Your task to perform on an android device: add a contact Image 0: 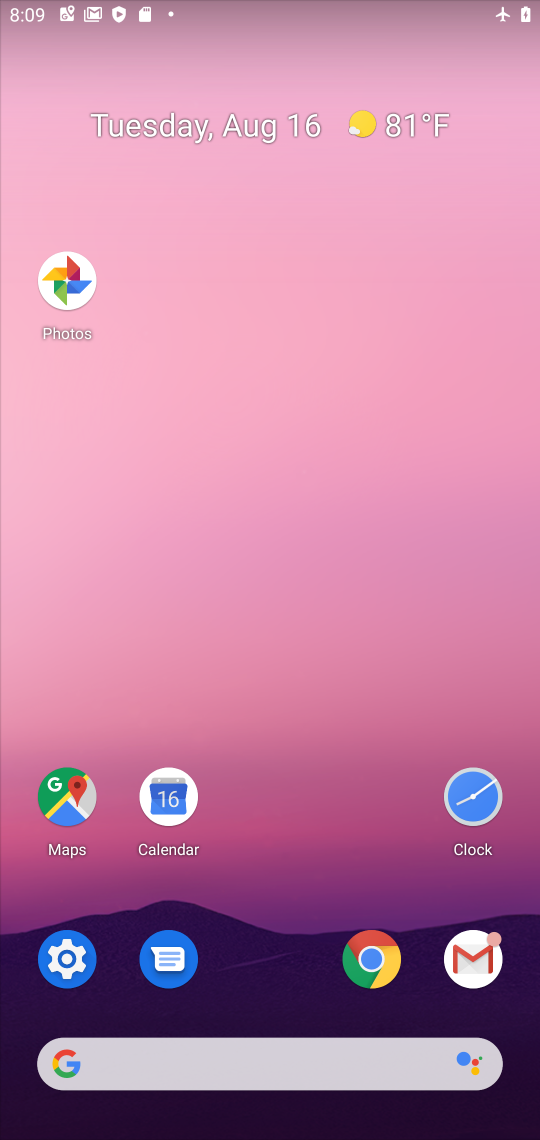
Step 0: drag from (283, 990) to (228, 328)
Your task to perform on an android device: add a contact Image 1: 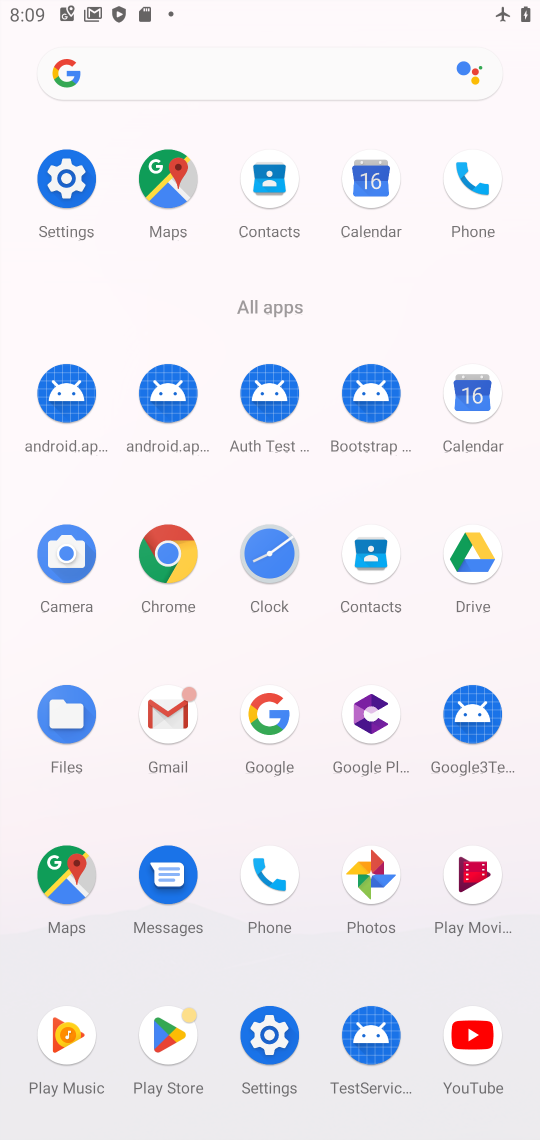
Step 1: click (378, 550)
Your task to perform on an android device: add a contact Image 2: 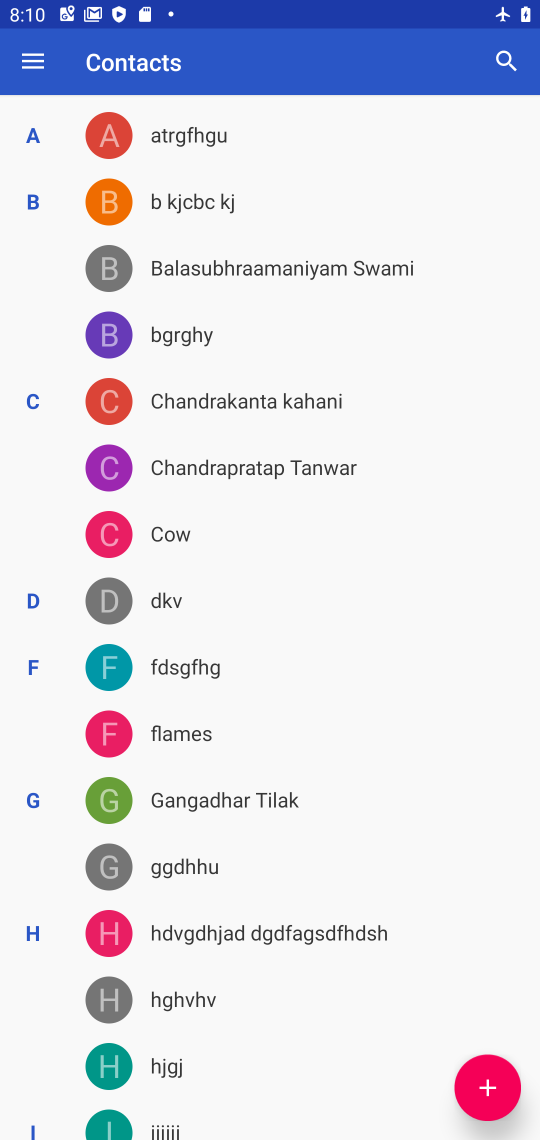
Step 2: click (485, 1079)
Your task to perform on an android device: add a contact Image 3: 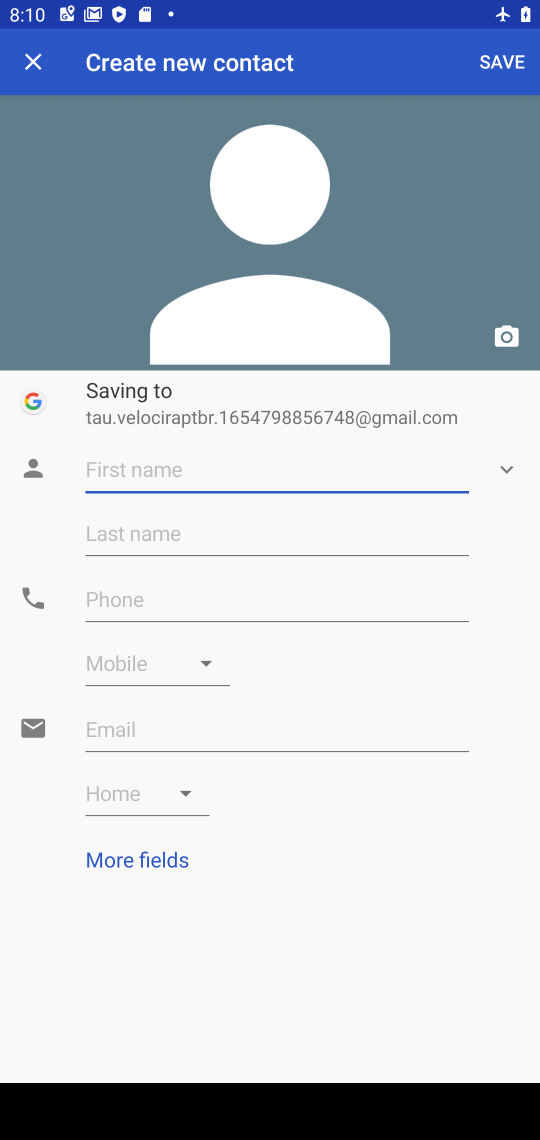
Step 3: type "nnn"
Your task to perform on an android device: add a contact Image 4: 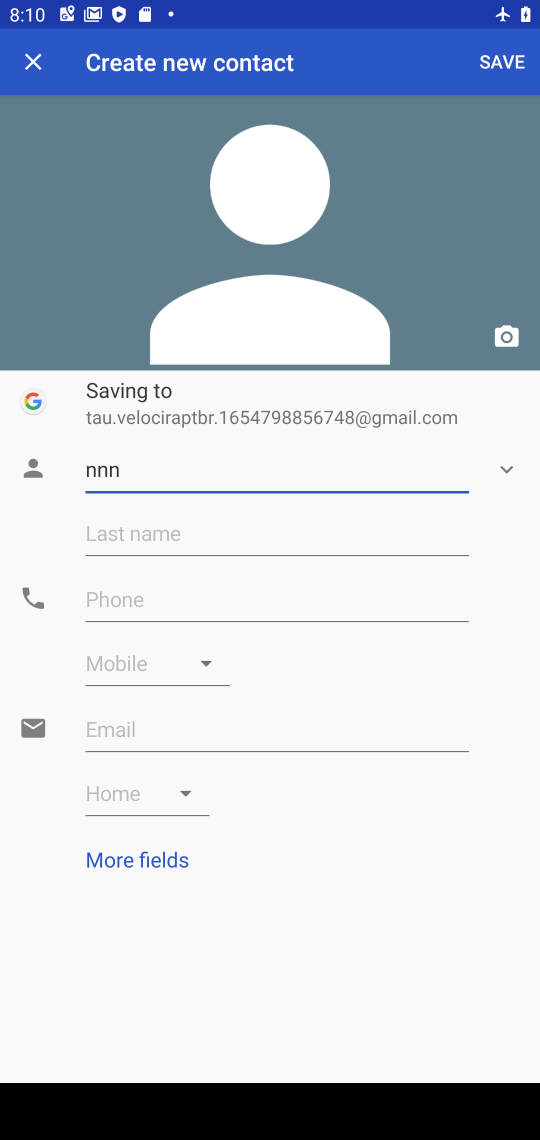
Step 4: click (130, 595)
Your task to perform on an android device: add a contact Image 5: 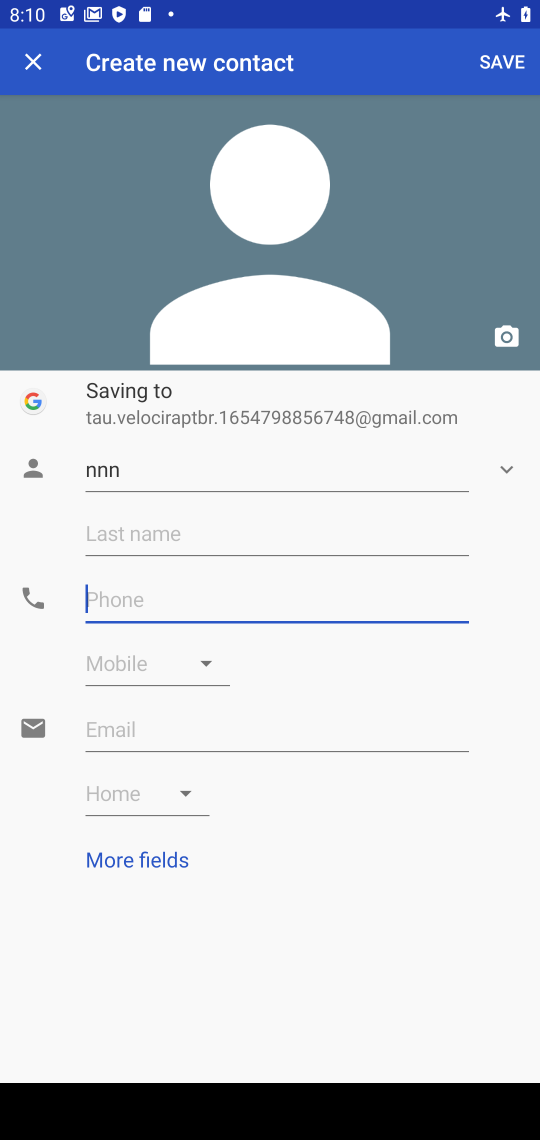
Step 5: type "0"
Your task to perform on an android device: add a contact Image 6: 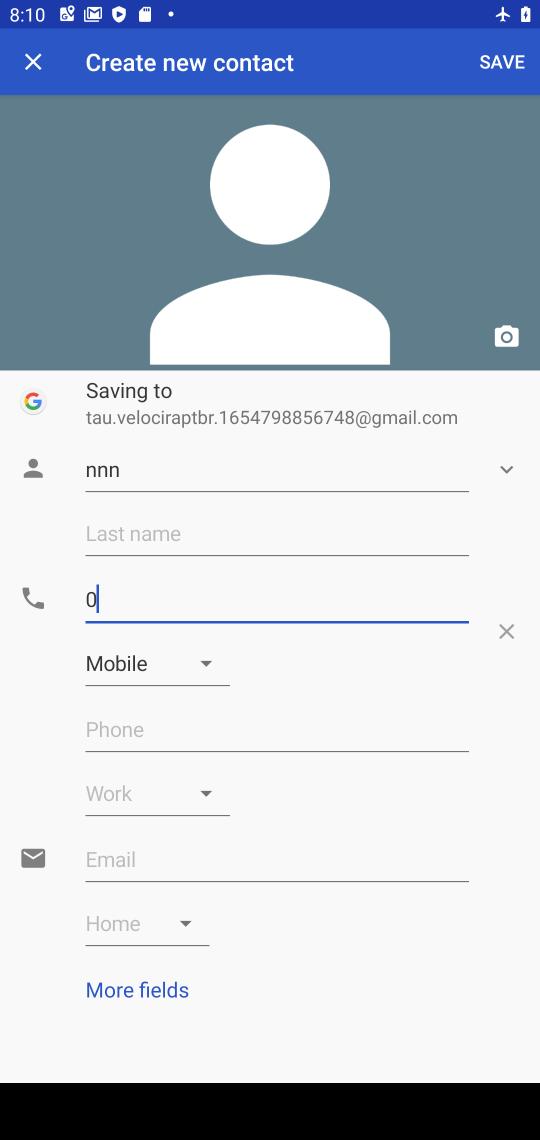
Step 6: click (505, 55)
Your task to perform on an android device: add a contact Image 7: 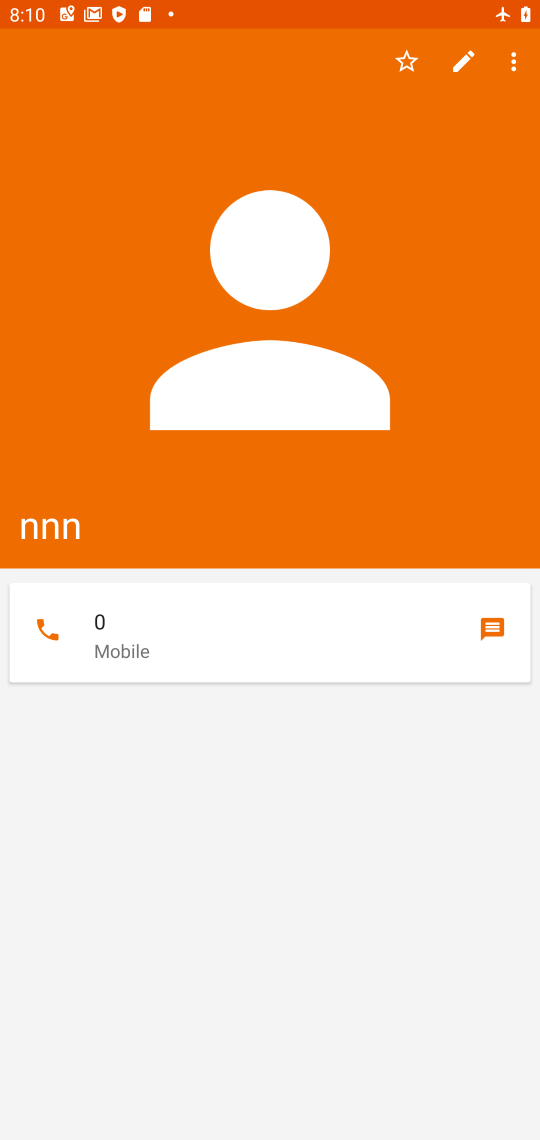
Step 7: task complete